Your task to perform on an android device: turn pop-ups off in chrome Image 0: 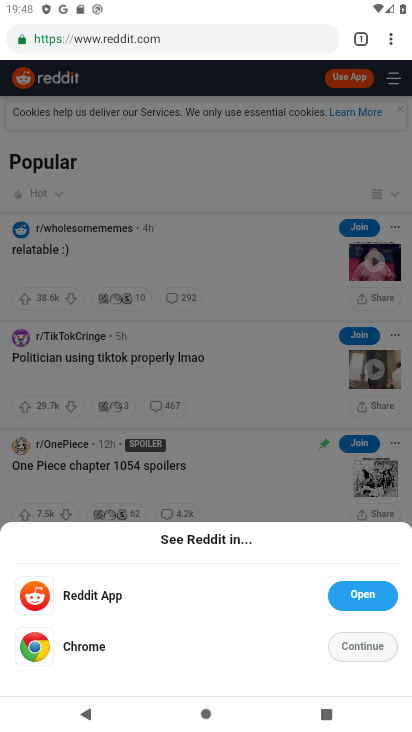
Step 0: press home button
Your task to perform on an android device: turn pop-ups off in chrome Image 1: 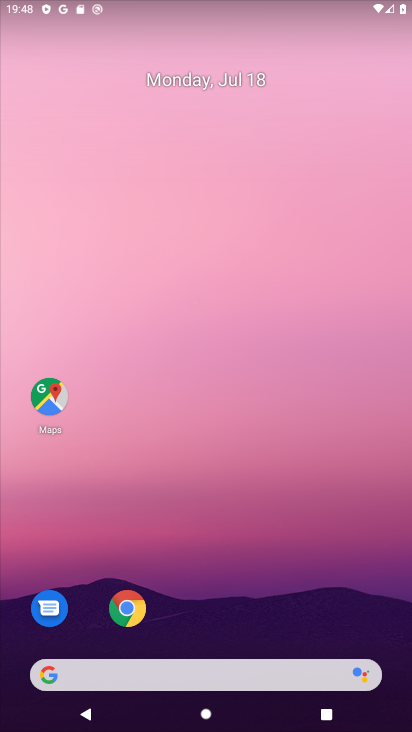
Step 1: click (132, 608)
Your task to perform on an android device: turn pop-ups off in chrome Image 2: 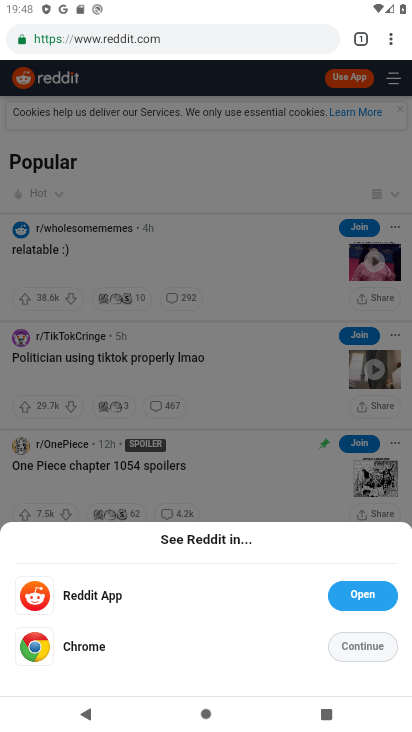
Step 2: click (387, 40)
Your task to perform on an android device: turn pop-ups off in chrome Image 3: 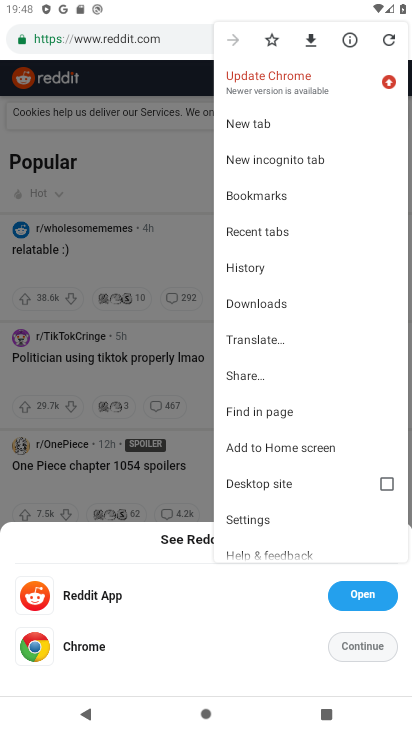
Step 3: click (264, 515)
Your task to perform on an android device: turn pop-ups off in chrome Image 4: 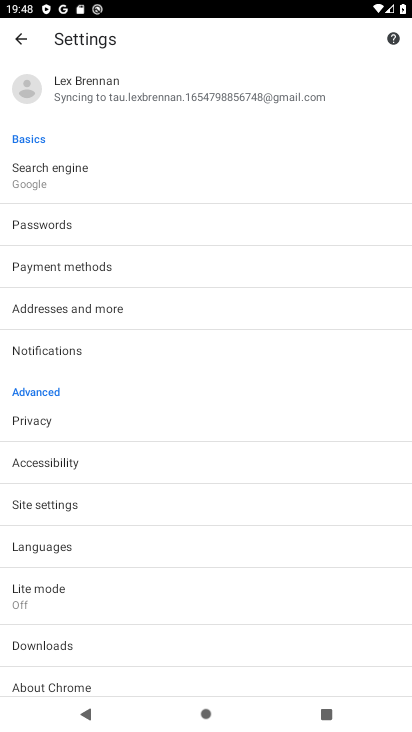
Step 4: click (26, 511)
Your task to perform on an android device: turn pop-ups off in chrome Image 5: 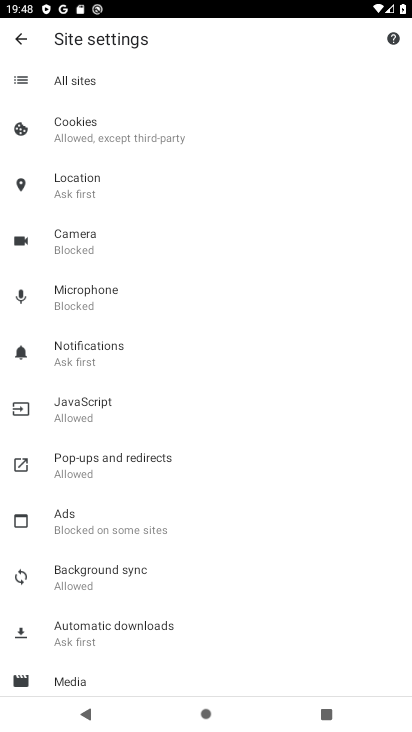
Step 5: click (98, 458)
Your task to perform on an android device: turn pop-ups off in chrome Image 6: 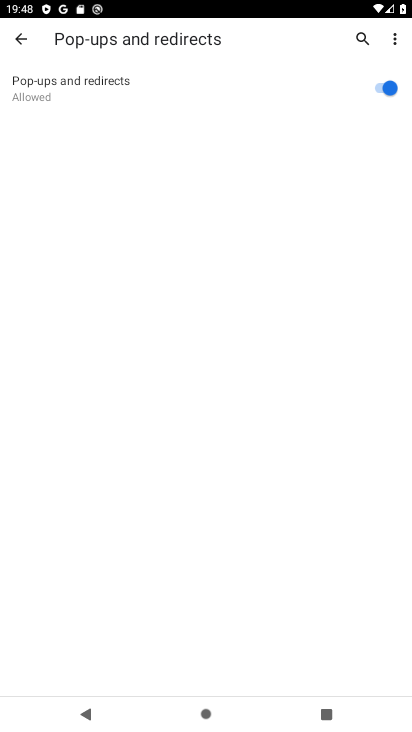
Step 6: click (393, 86)
Your task to perform on an android device: turn pop-ups off in chrome Image 7: 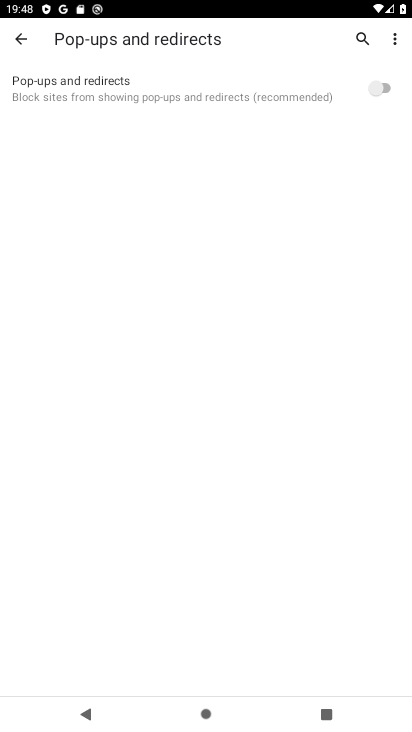
Step 7: task complete